Your task to perform on an android device: visit the assistant section in the google photos Image 0: 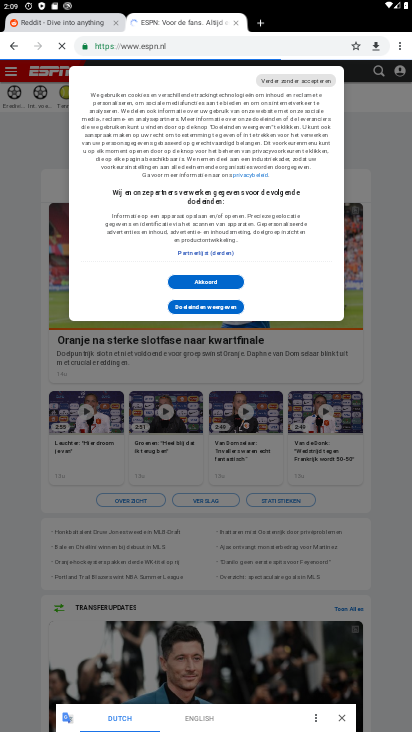
Step 0: press home button
Your task to perform on an android device: visit the assistant section in the google photos Image 1: 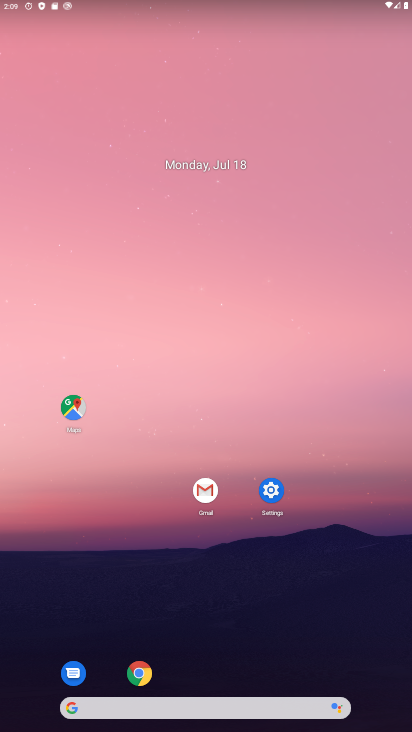
Step 1: drag from (223, 727) to (287, 108)
Your task to perform on an android device: visit the assistant section in the google photos Image 2: 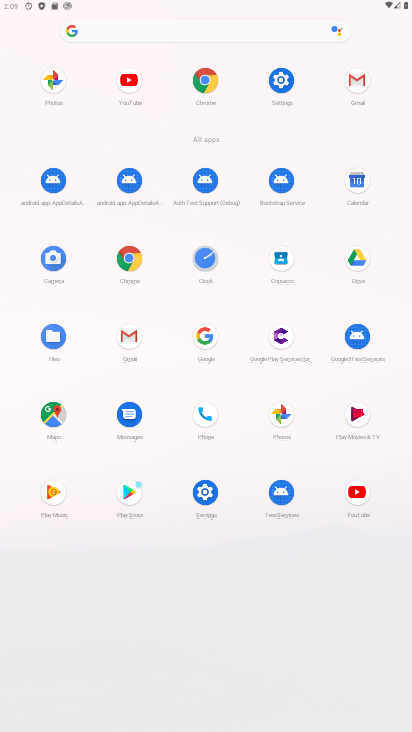
Step 2: click (279, 412)
Your task to perform on an android device: visit the assistant section in the google photos Image 3: 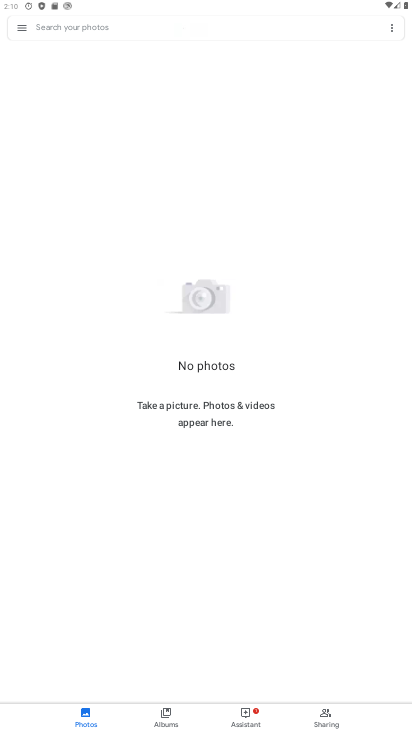
Step 3: click (249, 716)
Your task to perform on an android device: visit the assistant section in the google photos Image 4: 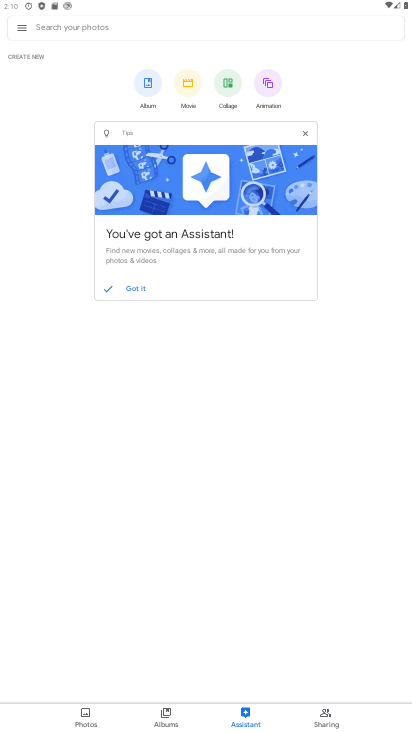
Step 4: click (249, 714)
Your task to perform on an android device: visit the assistant section in the google photos Image 5: 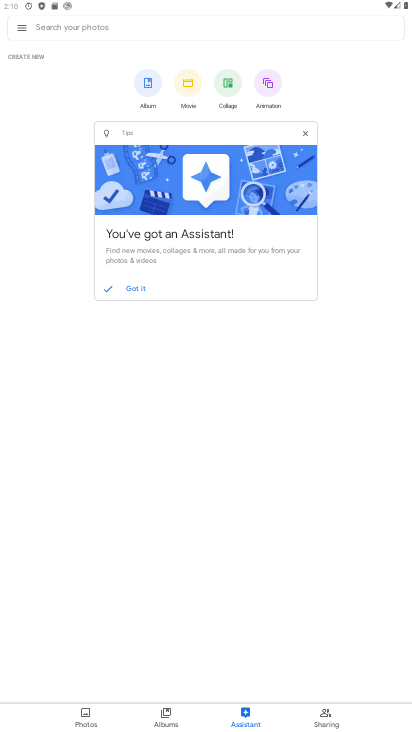
Step 5: click (139, 281)
Your task to perform on an android device: visit the assistant section in the google photos Image 6: 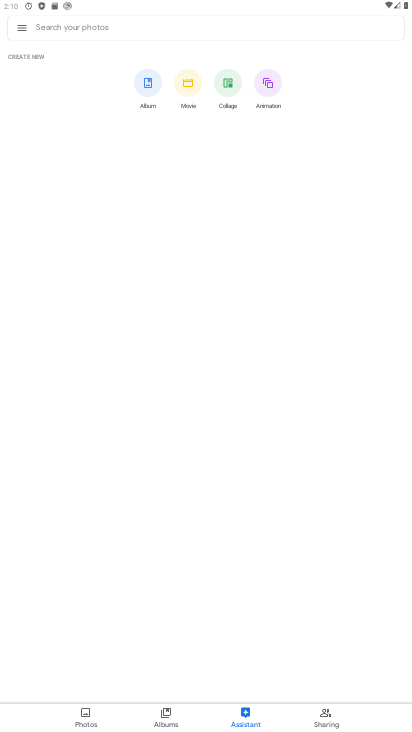
Step 6: task complete